Your task to perform on an android device: allow cookies in the chrome app Image 0: 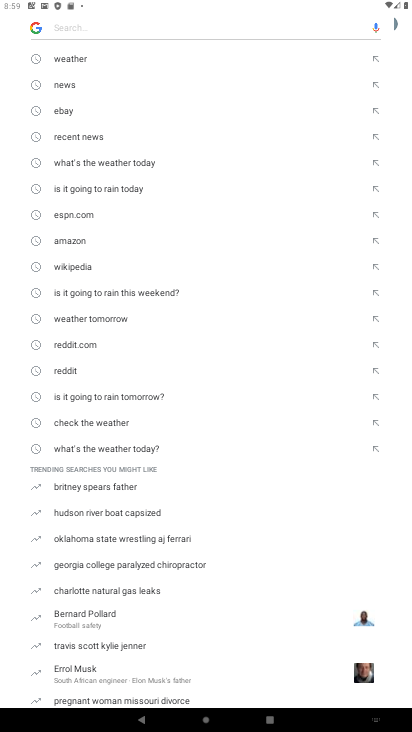
Step 0: press home button
Your task to perform on an android device: allow cookies in the chrome app Image 1: 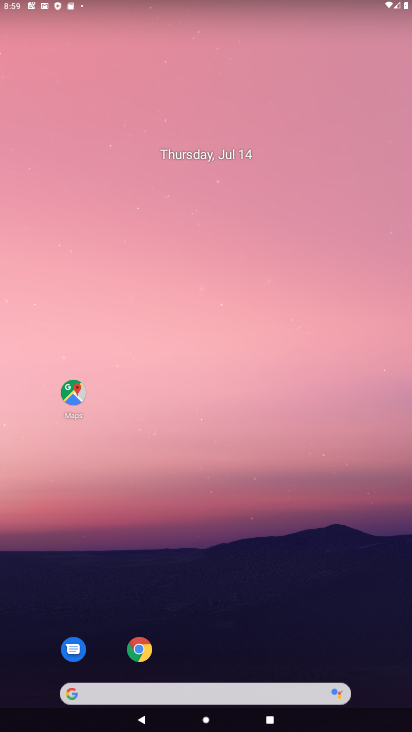
Step 1: click (141, 656)
Your task to perform on an android device: allow cookies in the chrome app Image 2: 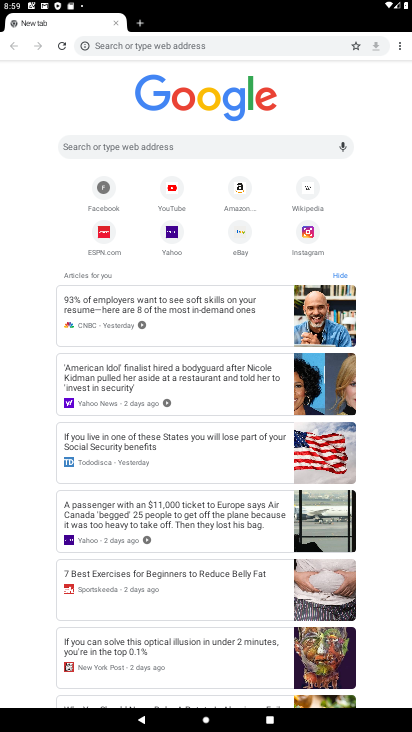
Step 2: click (396, 45)
Your task to perform on an android device: allow cookies in the chrome app Image 3: 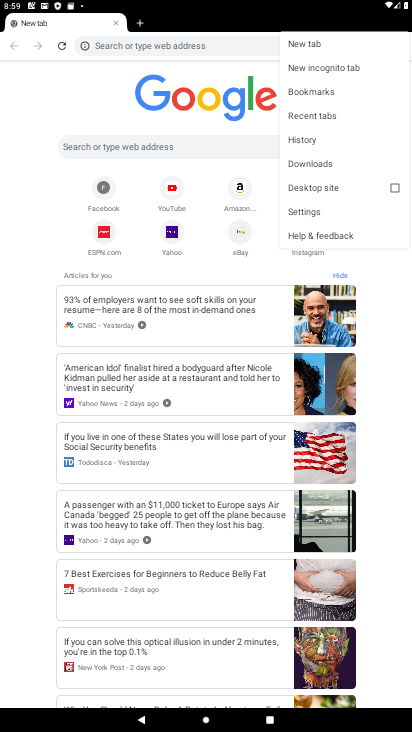
Step 3: click (307, 212)
Your task to perform on an android device: allow cookies in the chrome app Image 4: 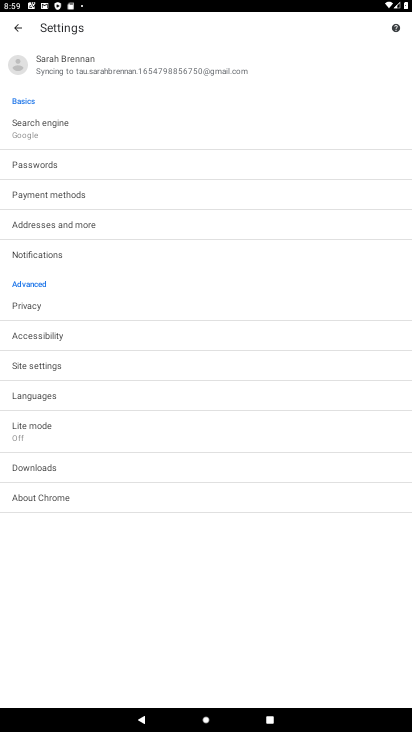
Step 4: click (62, 367)
Your task to perform on an android device: allow cookies in the chrome app Image 5: 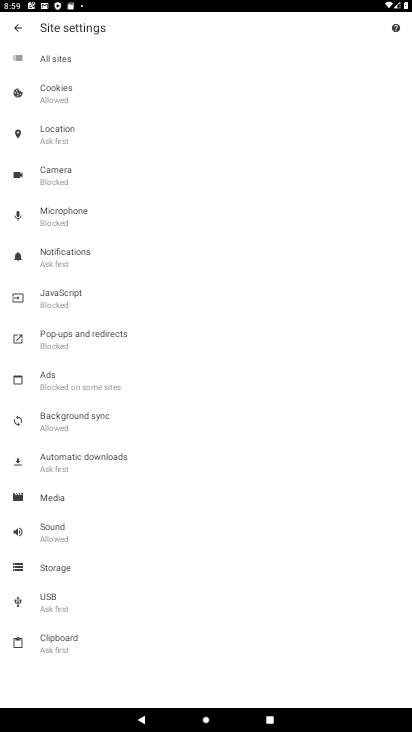
Step 5: click (68, 92)
Your task to perform on an android device: allow cookies in the chrome app Image 6: 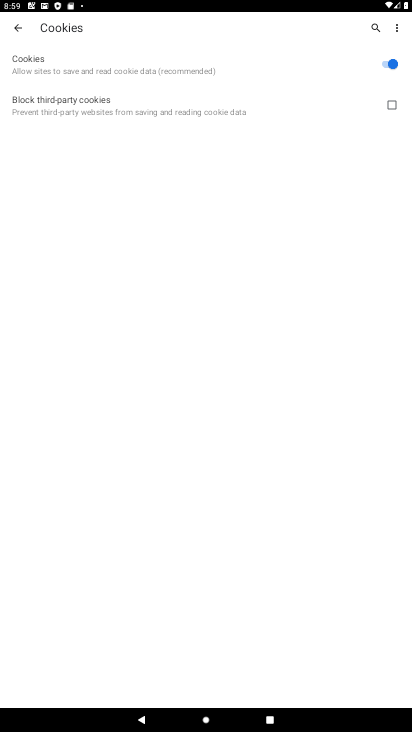
Step 6: task complete